Your task to perform on an android device: install app "Grab" Image 0: 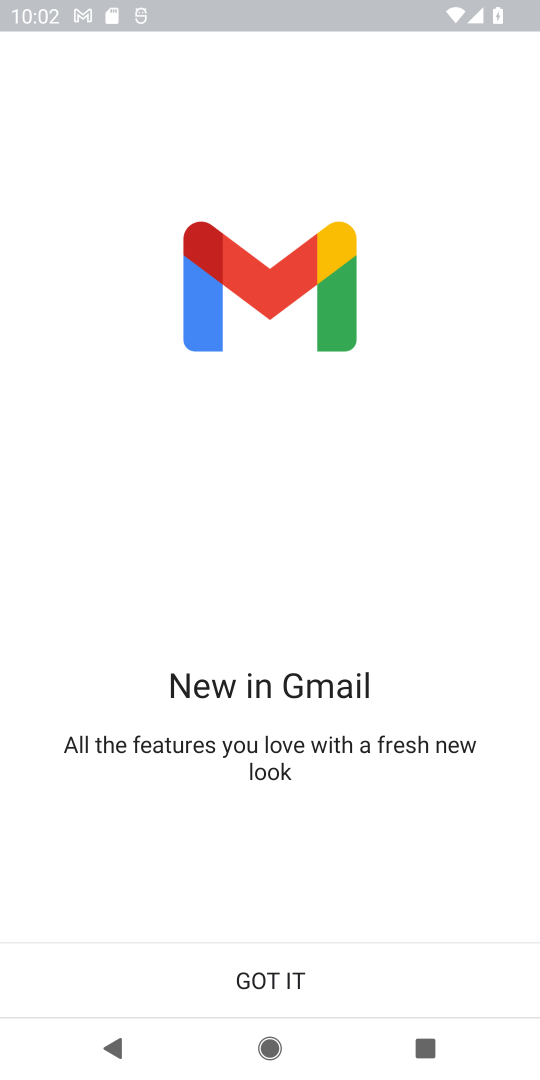
Step 0: press home button
Your task to perform on an android device: install app "Grab" Image 1: 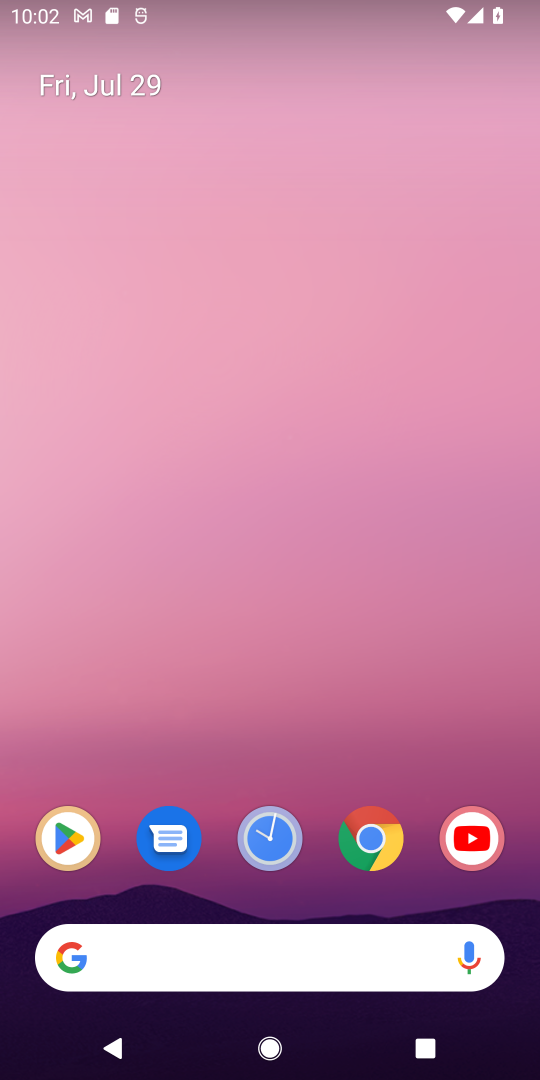
Step 1: click (61, 845)
Your task to perform on an android device: install app "Grab" Image 2: 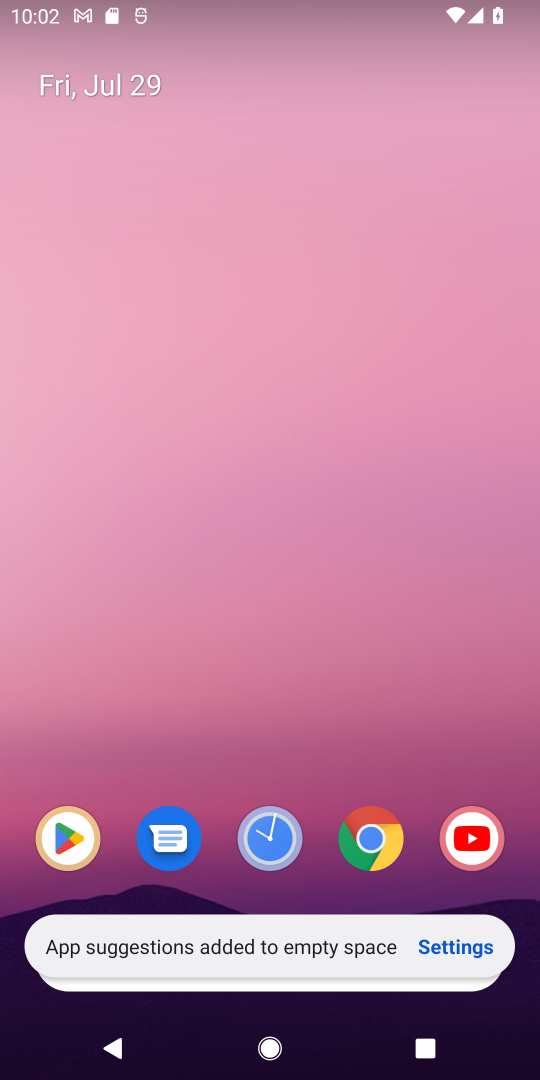
Step 2: click (76, 831)
Your task to perform on an android device: install app "Grab" Image 3: 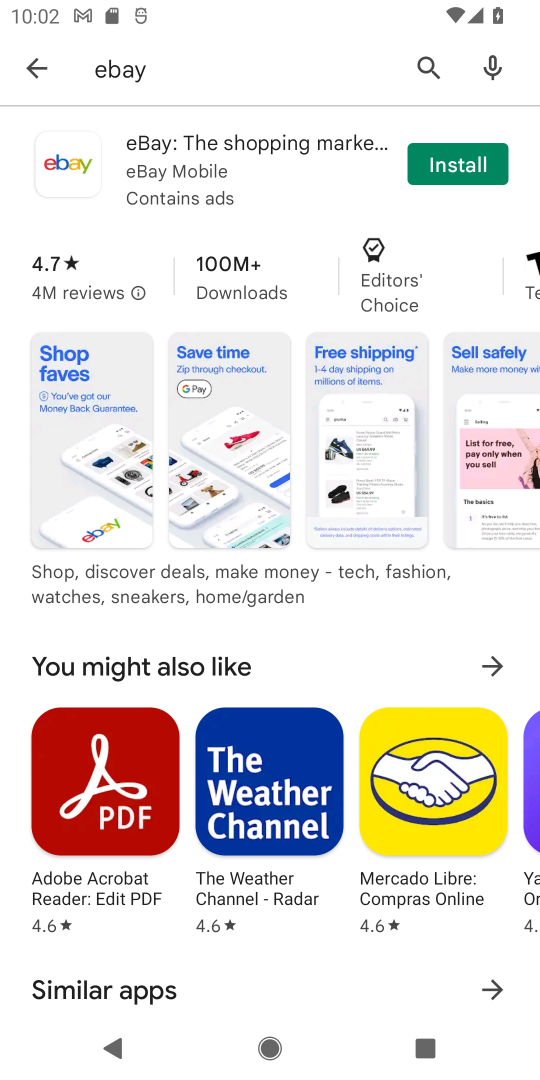
Step 3: click (161, 76)
Your task to perform on an android device: install app "Grab" Image 4: 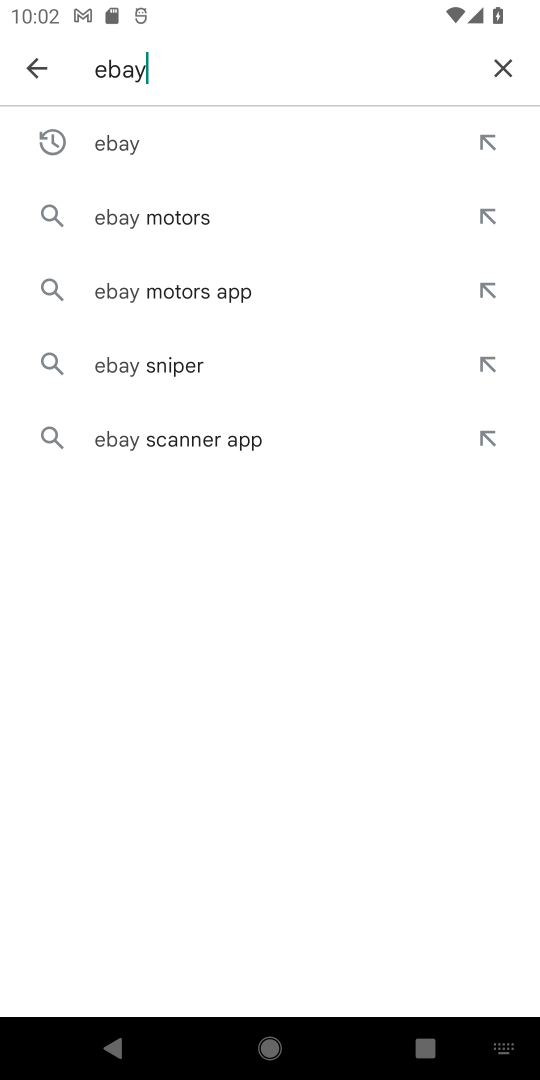
Step 4: click (490, 51)
Your task to perform on an android device: install app "Grab" Image 5: 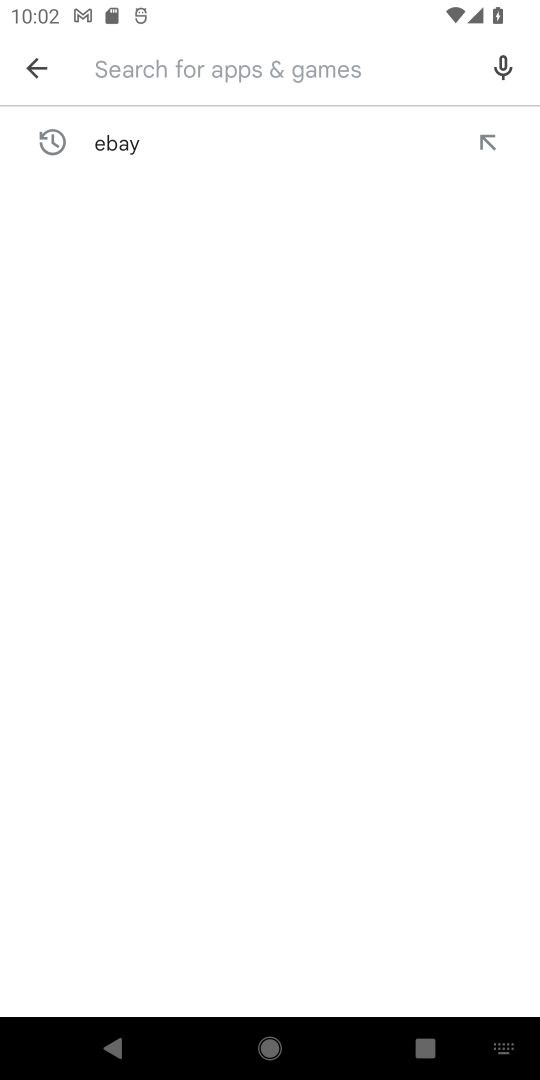
Step 5: type "Grab"
Your task to perform on an android device: install app "Grab" Image 6: 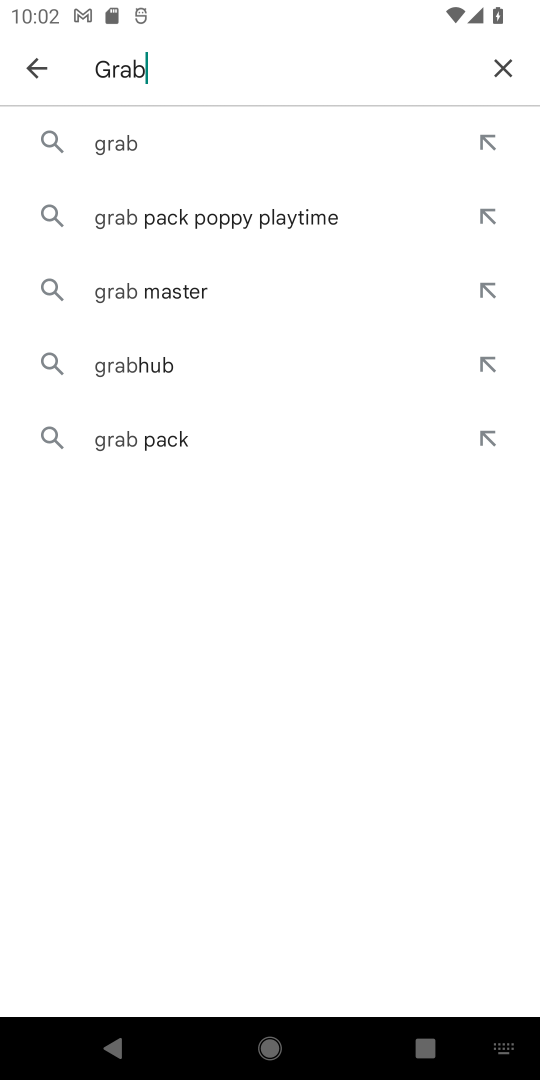
Step 6: click (166, 149)
Your task to perform on an android device: install app "Grab" Image 7: 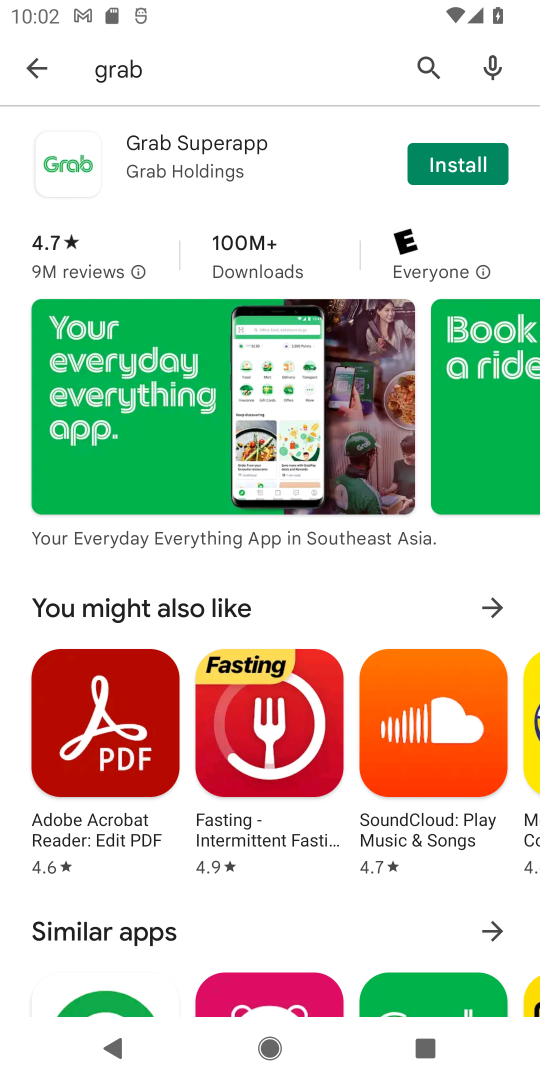
Step 7: click (473, 166)
Your task to perform on an android device: install app "Grab" Image 8: 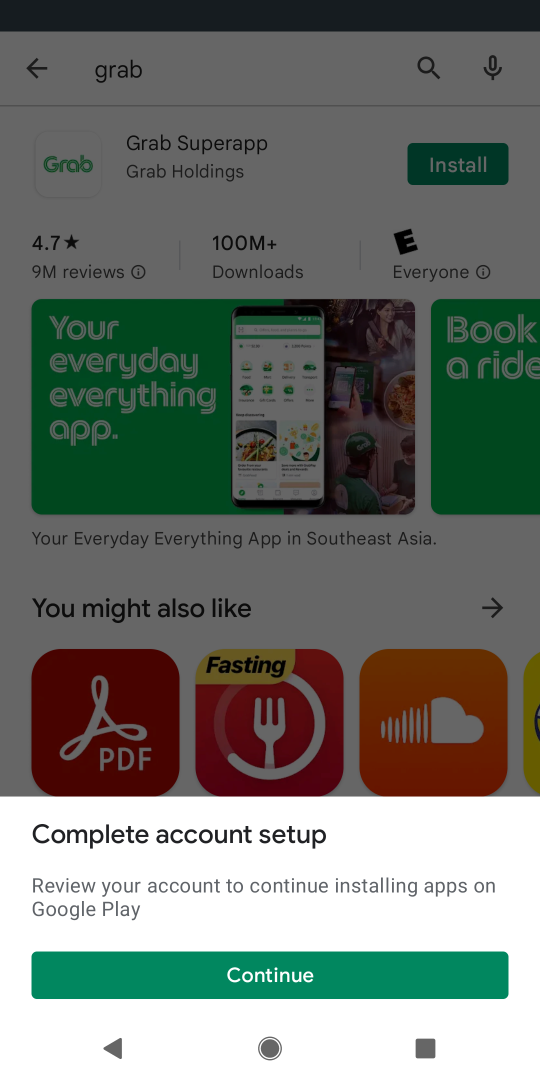
Step 8: click (234, 980)
Your task to perform on an android device: install app "Grab" Image 9: 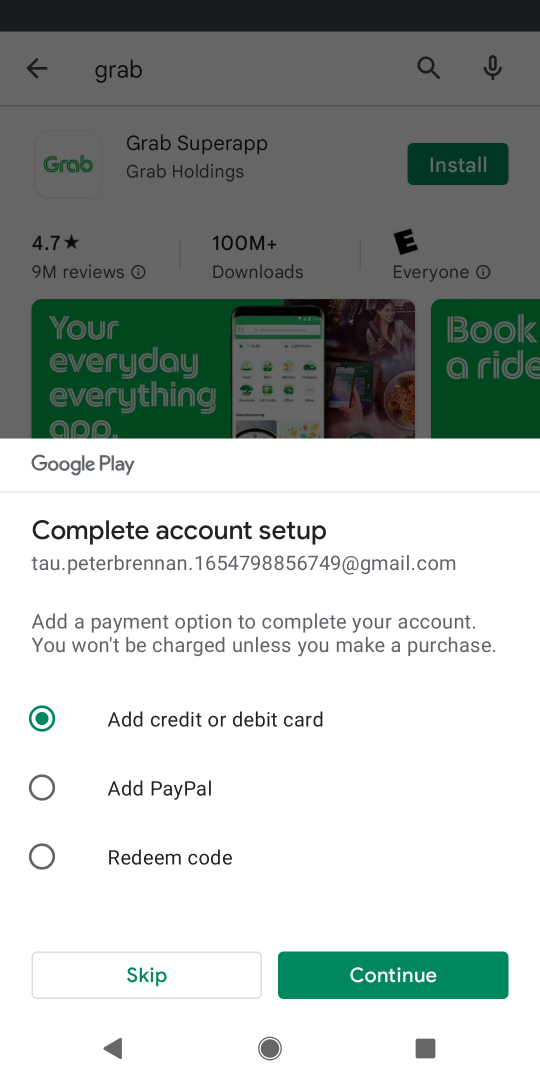
Step 9: click (201, 975)
Your task to perform on an android device: install app "Grab" Image 10: 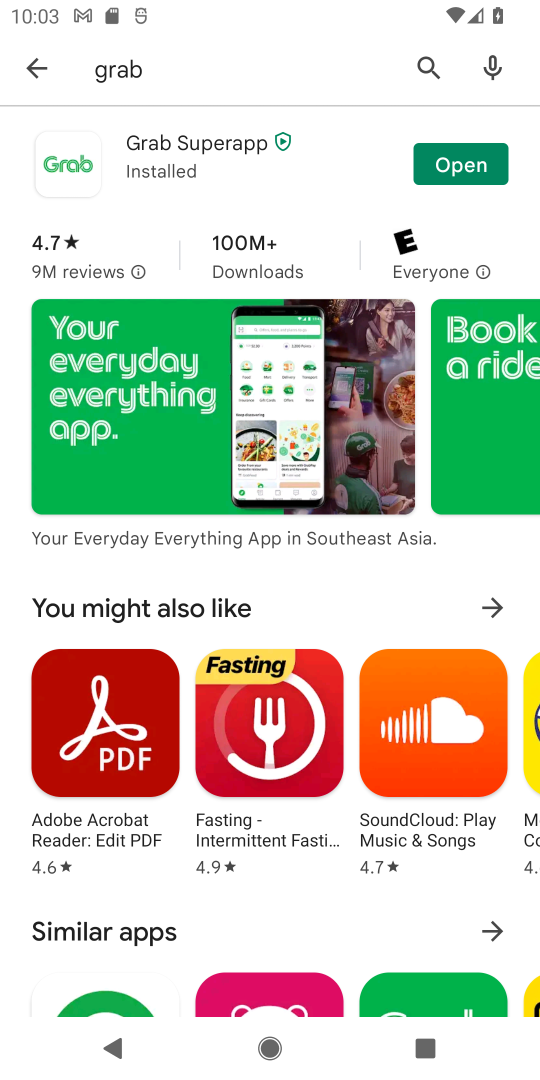
Step 10: task complete